Your task to perform on an android device: turn off smart reply in the gmail app Image 0: 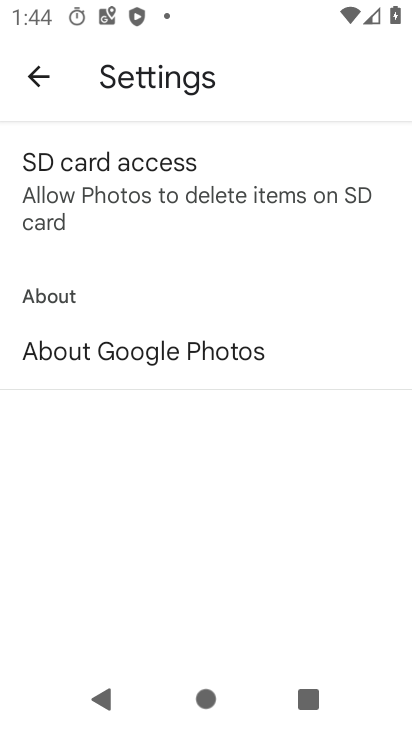
Step 0: press home button
Your task to perform on an android device: turn off smart reply in the gmail app Image 1: 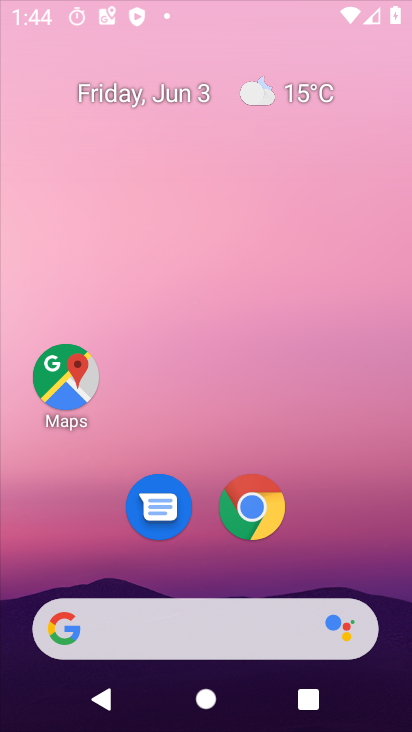
Step 1: drag from (387, 666) to (350, 57)
Your task to perform on an android device: turn off smart reply in the gmail app Image 2: 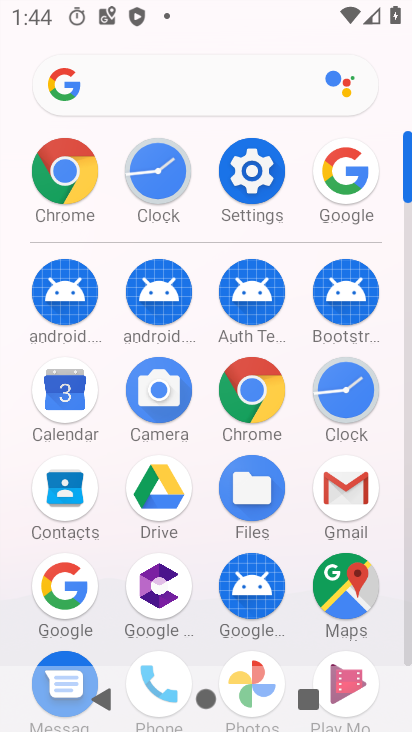
Step 2: click (349, 488)
Your task to perform on an android device: turn off smart reply in the gmail app Image 3: 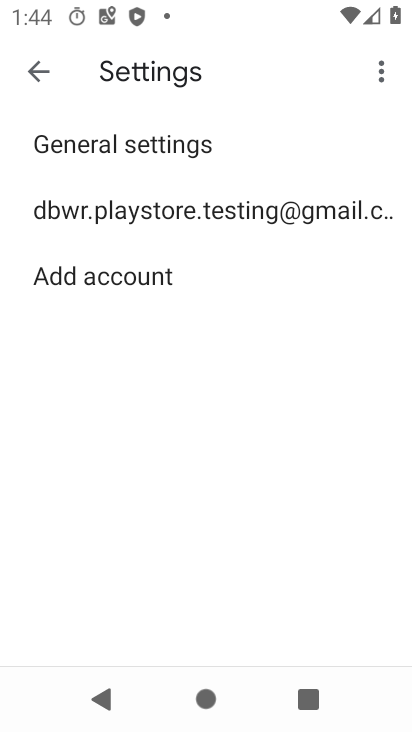
Step 3: click (249, 219)
Your task to perform on an android device: turn off smart reply in the gmail app Image 4: 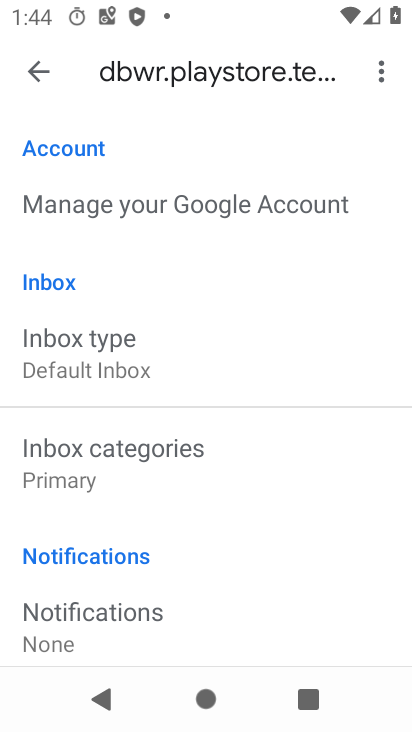
Step 4: drag from (185, 613) to (282, 129)
Your task to perform on an android device: turn off smart reply in the gmail app Image 5: 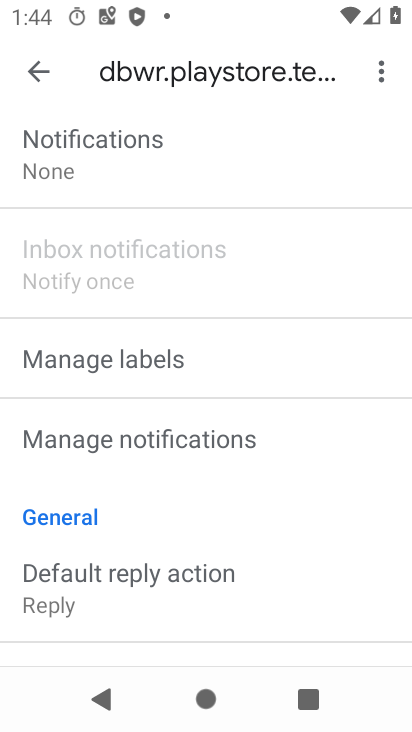
Step 5: drag from (232, 592) to (243, 199)
Your task to perform on an android device: turn off smart reply in the gmail app Image 6: 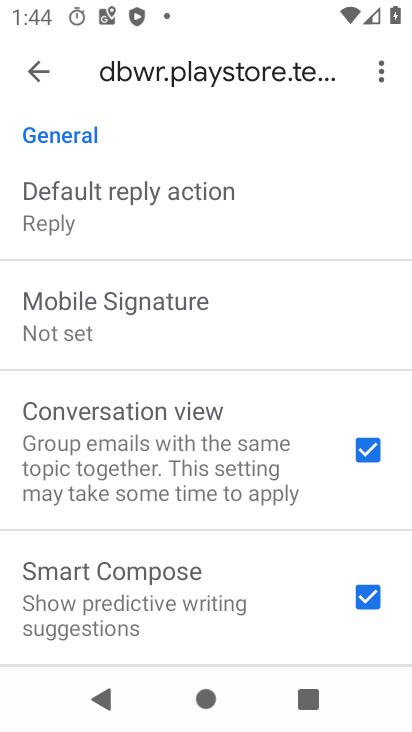
Step 6: drag from (281, 561) to (293, 311)
Your task to perform on an android device: turn off smart reply in the gmail app Image 7: 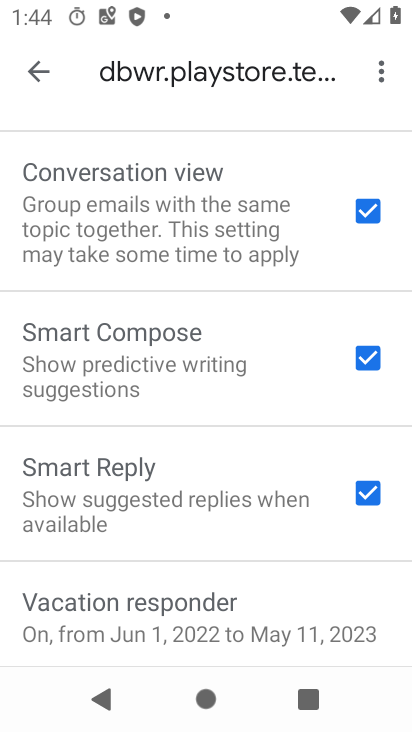
Step 7: click (290, 478)
Your task to perform on an android device: turn off smart reply in the gmail app Image 8: 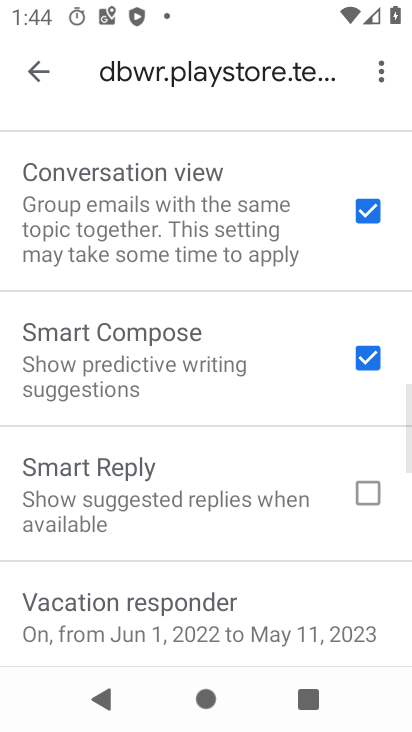
Step 8: task complete